Your task to perform on an android device: change your default location settings in chrome Image 0: 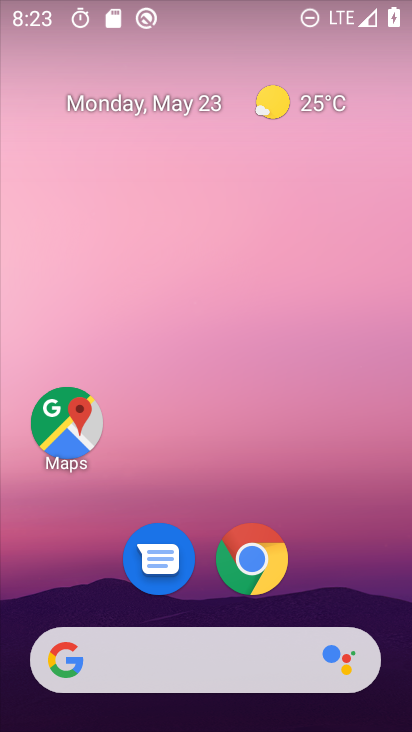
Step 0: drag from (386, 627) to (284, 24)
Your task to perform on an android device: change your default location settings in chrome Image 1: 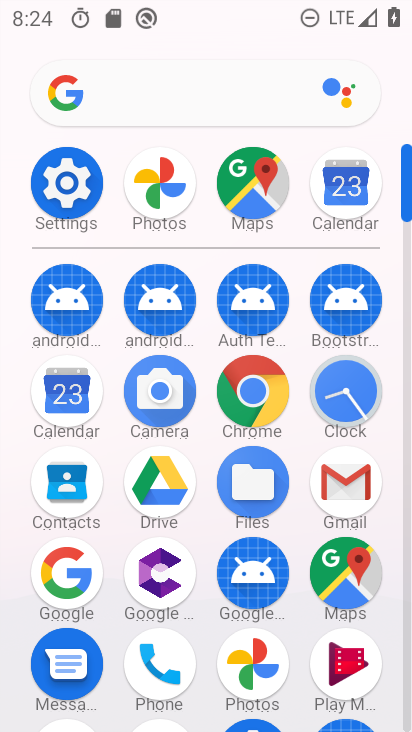
Step 1: click (255, 404)
Your task to perform on an android device: change your default location settings in chrome Image 2: 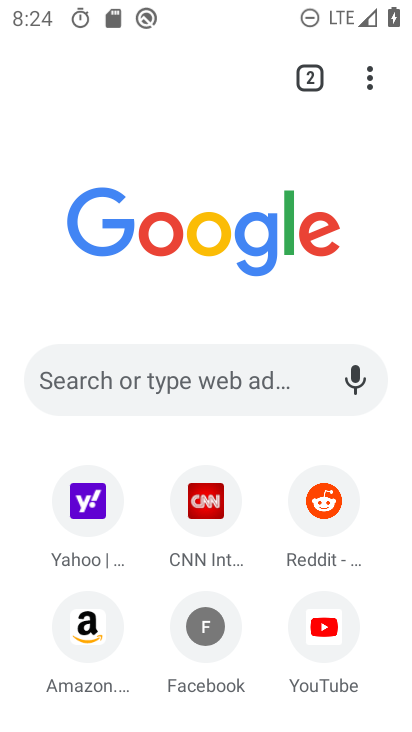
Step 2: click (368, 75)
Your task to perform on an android device: change your default location settings in chrome Image 3: 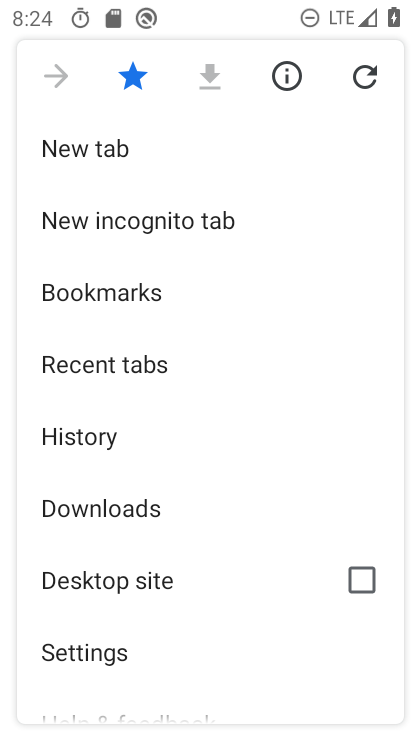
Step 3: drag from (151, 657) to (194, 213)
Your task to perform on an android device: change your default location settings in chrome Image 4: 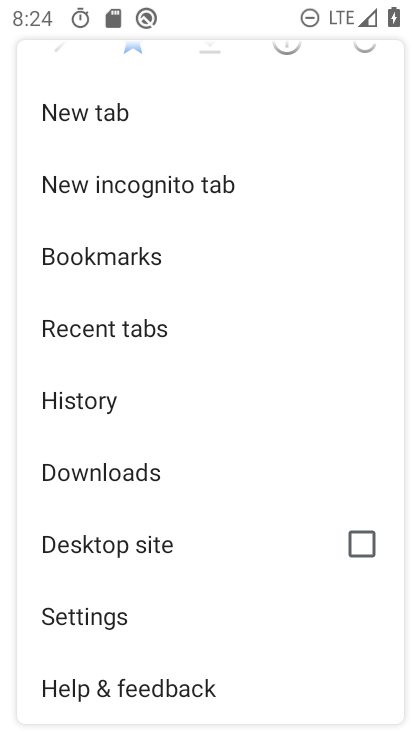
Step 4: click (148, 620)
Your task to perform on an android device: change your default location settings in chrome Image 5: 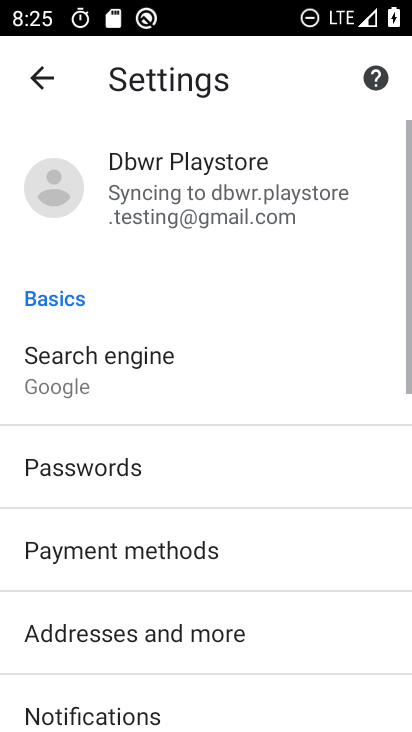
Step 5: click (120, 376)
Your task to perform on an android device: change your default location settings in chrome Image 6: 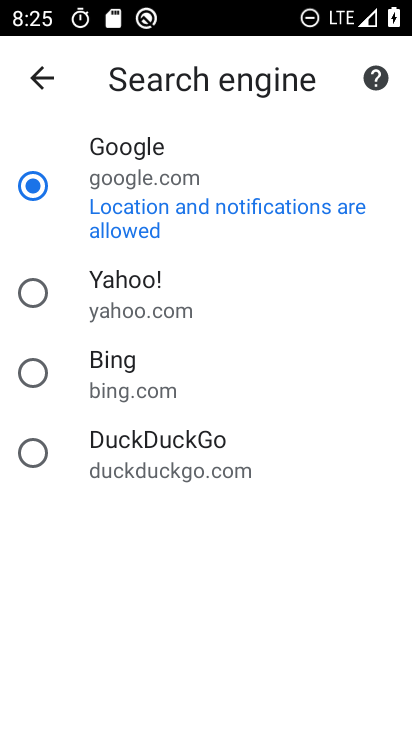
Step 6: click (101, 357)
Your task to perform on an android device: change your default location settings in chrome Image 7: 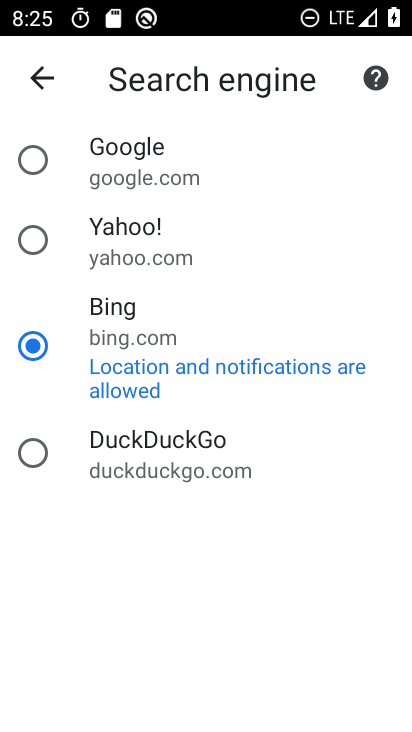
Step 7: task complete